Your task to perform on an android device: move an email to a new category in the gmail app Image 0: 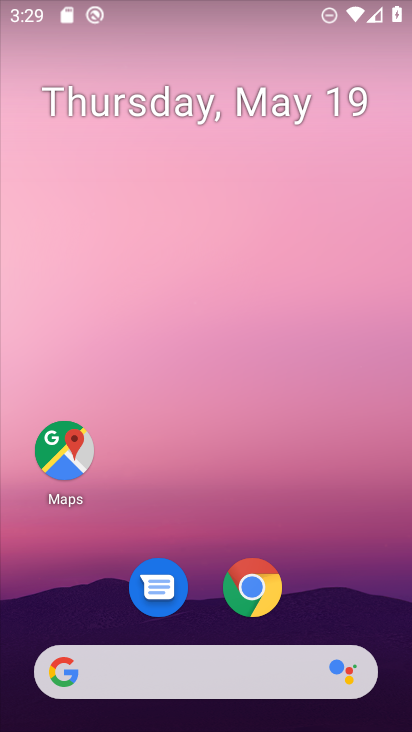
Step 0: drag from (361, 553) to (360, 254)
Your task to perform on an android device: move an email to a new category in the gmail app Image 1: 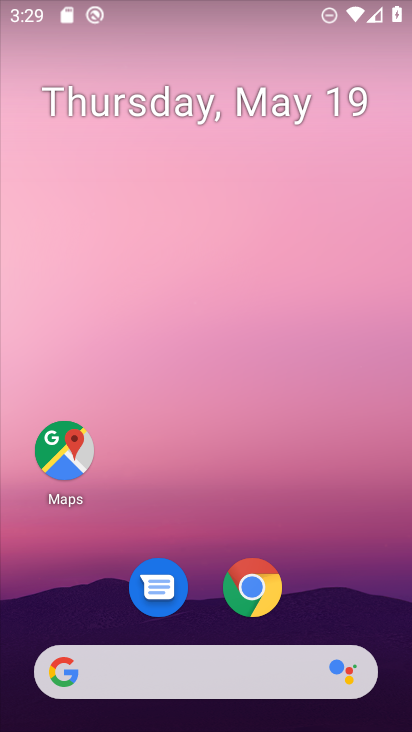
Step 1: drag from (354, 585) to (354, 159)
Your task to perform on an android device: move an email to a new category in the gmail app Image 2: 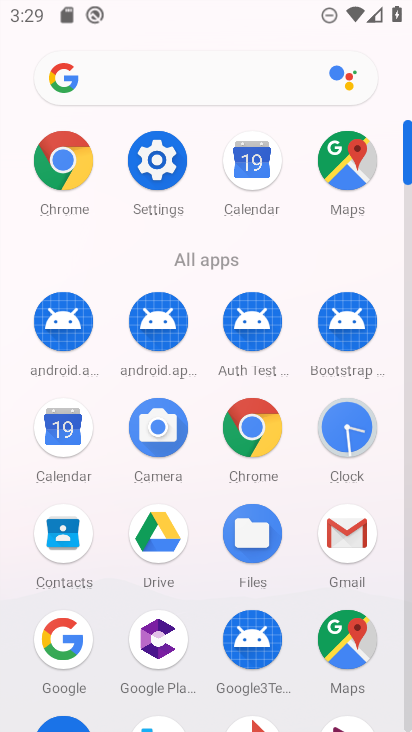
Step 2: click (327, 552)
Your task to perform on an android device: move an email to a new category in the gmail app Image 3: 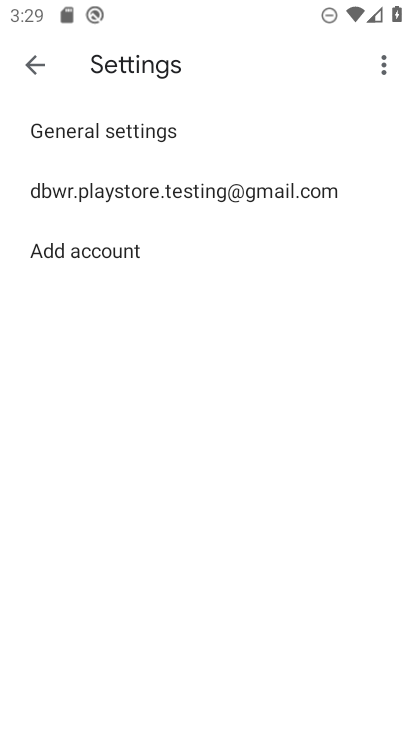
Step 3: click (32, 75)
Your task to perform on an android device: move an email to a new category in the gmail app Image 4: 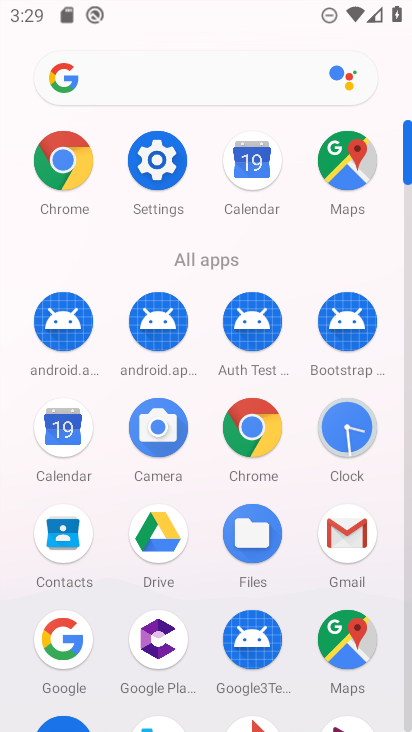
Step 4: click (352, 541)
Your task to perform on an android device: move an email to a new category in the gmail app Image 5: 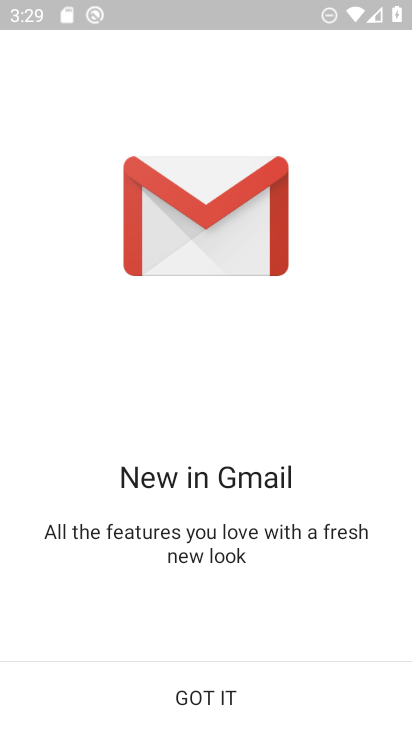
Step 5: click (246, 686)
Your task to perform on an android device: move an email to a new category in the gmail app Image 6: 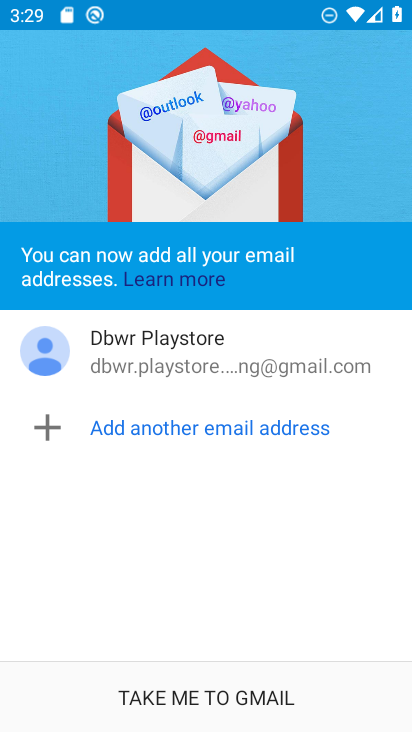
Step 6: click (254, 709)
Your task to perform on an android device: move an email to a new category in the gmail app Image 7: 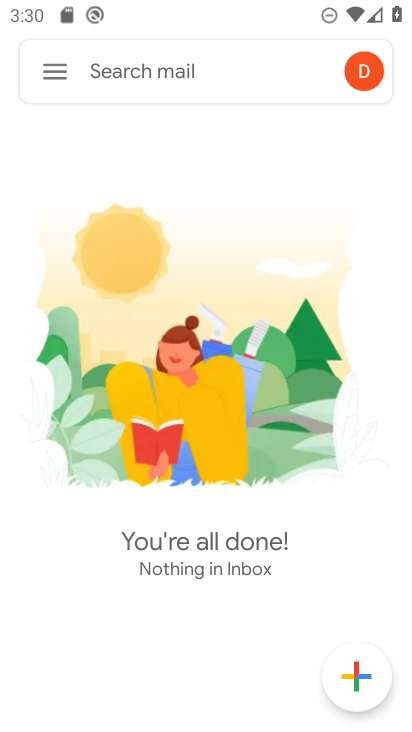
Step 7: task complete